Your task to perform on an android device: Open ESPN.com Image 0: 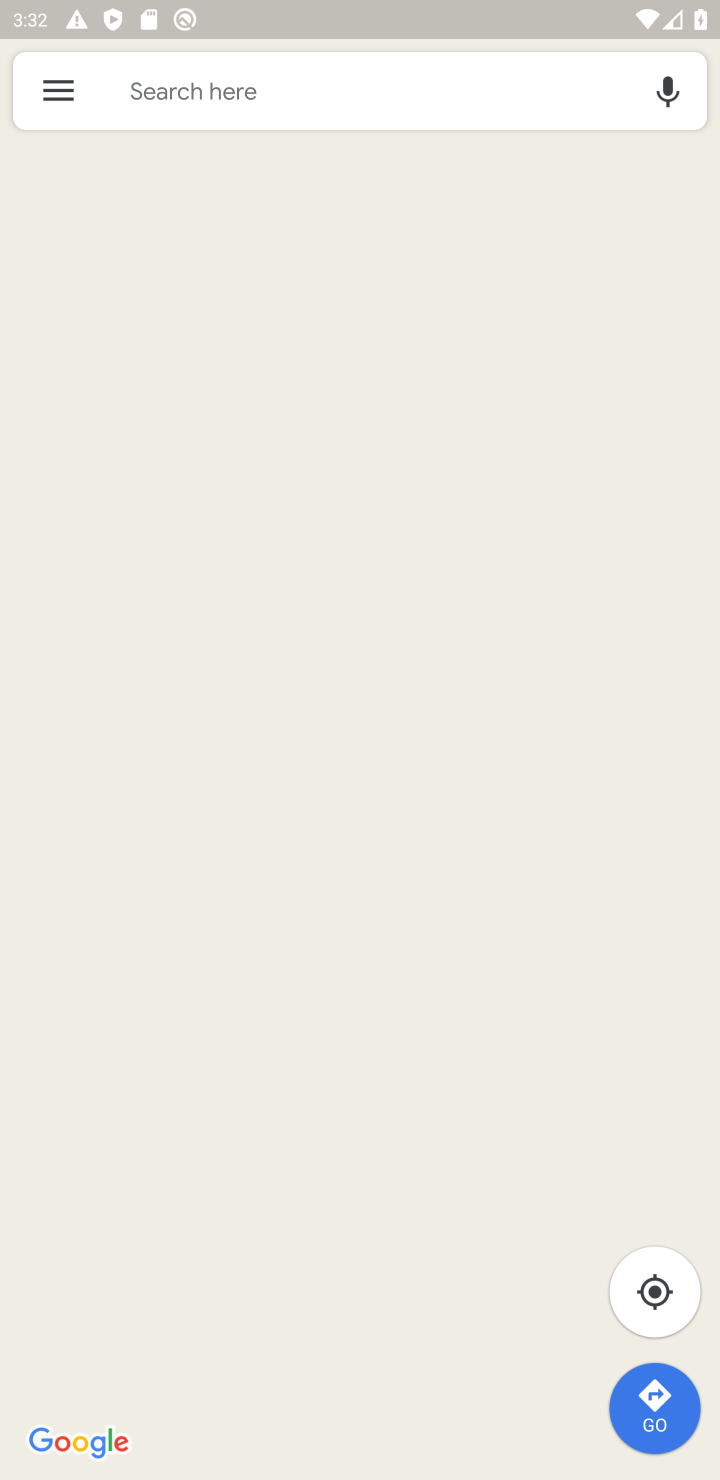
Step 0: press home button
Your task to perform on an android device: Open ESPN.com Image 1: 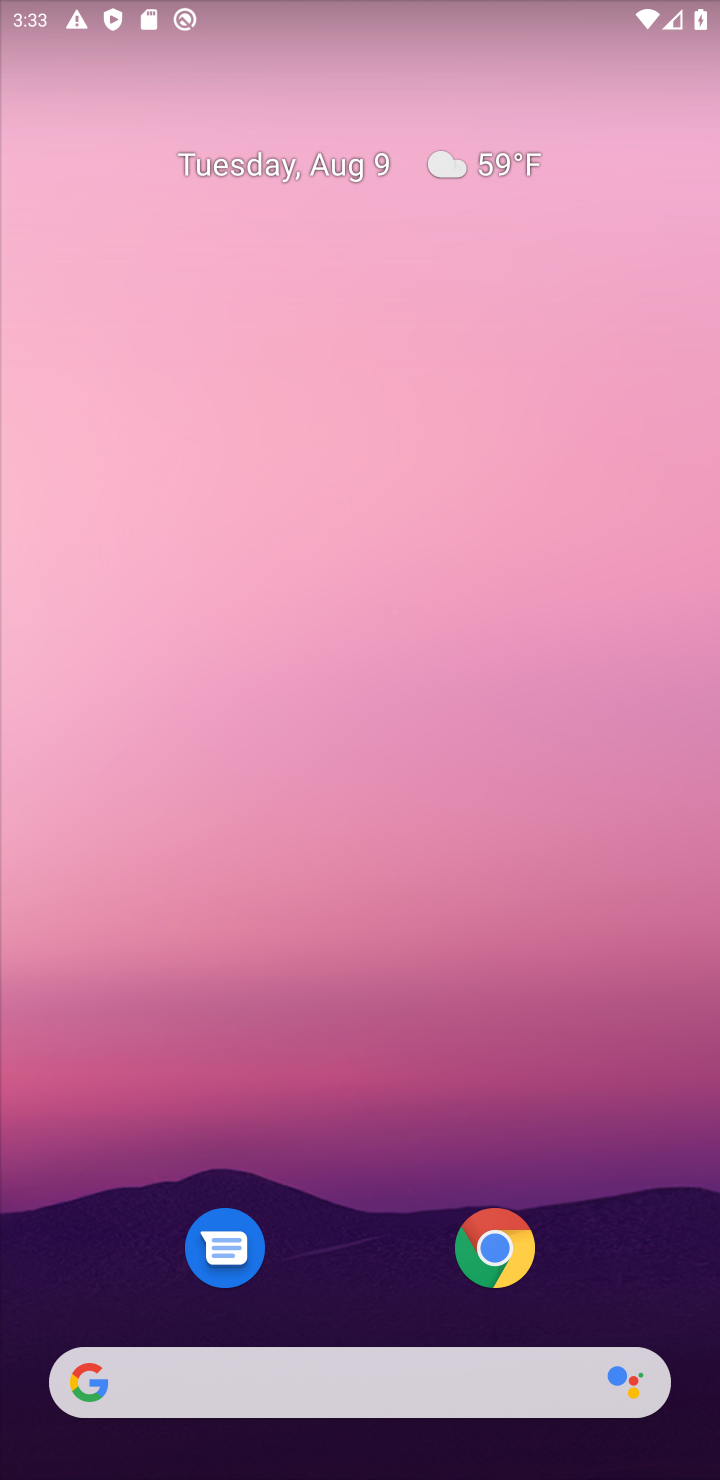
Step 1: drag from (356, 1169) to (252, 233)
Your task to perform on an android device: Open ESPN.com Image 2: 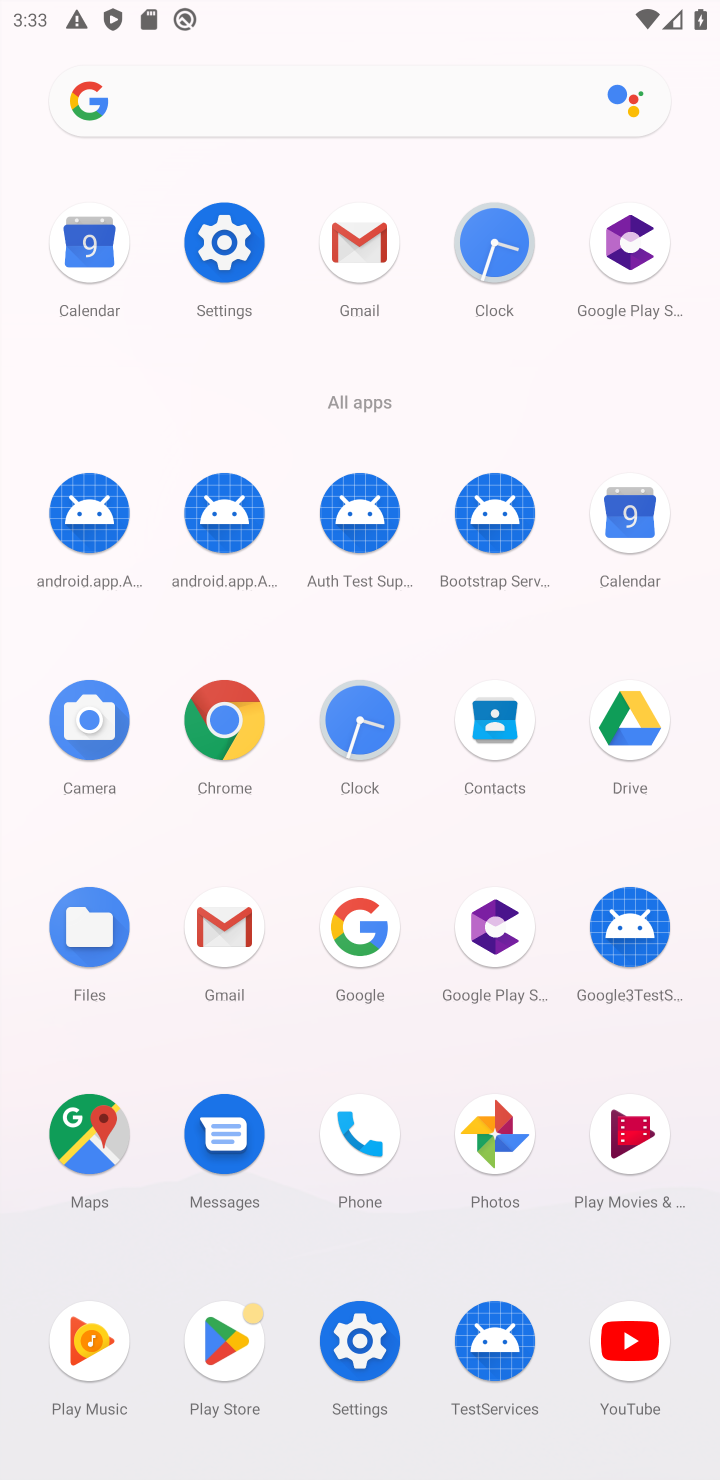
Step 2: click (233, 723)
Your task to perform on an android device: Open ESPN.com Image 3: 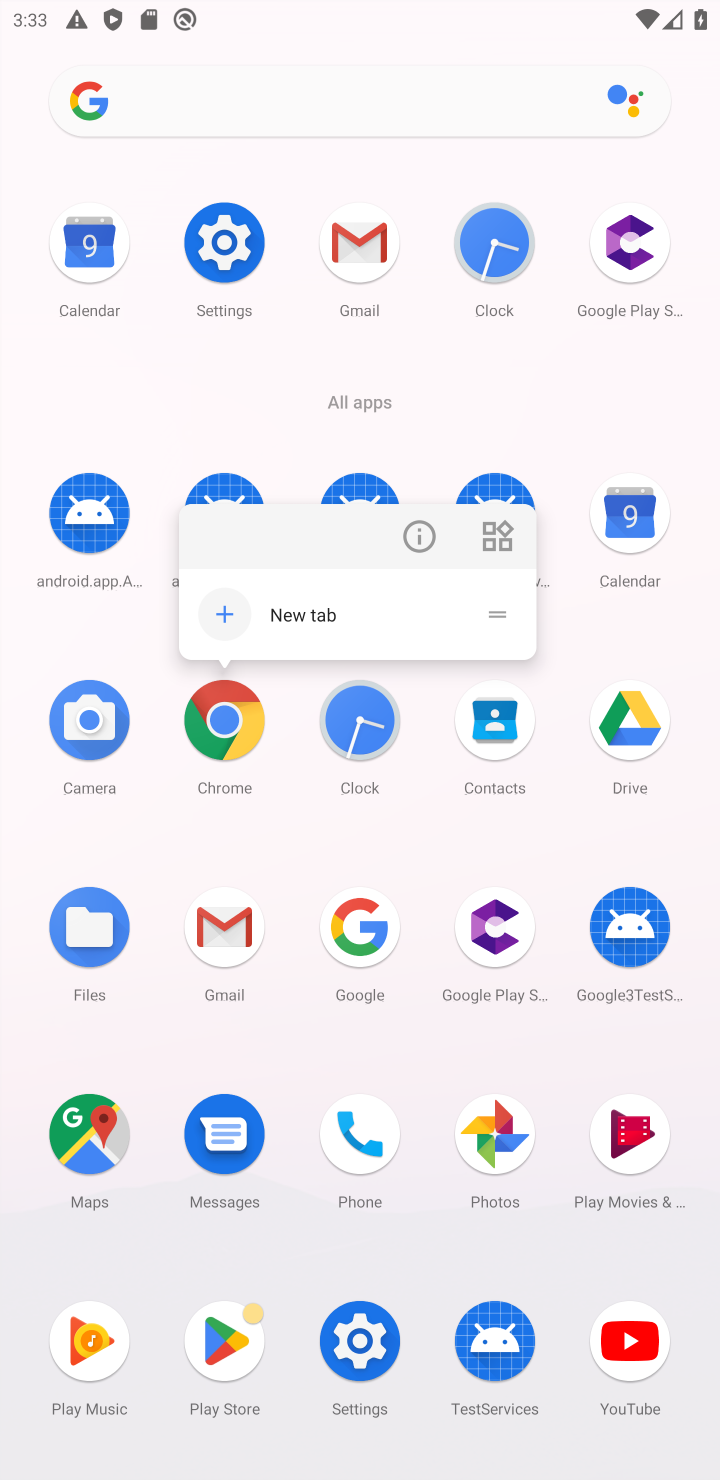
Step 3: click (223, 710)
Your task to perform on an android device: Open ESPN.com Image 4: 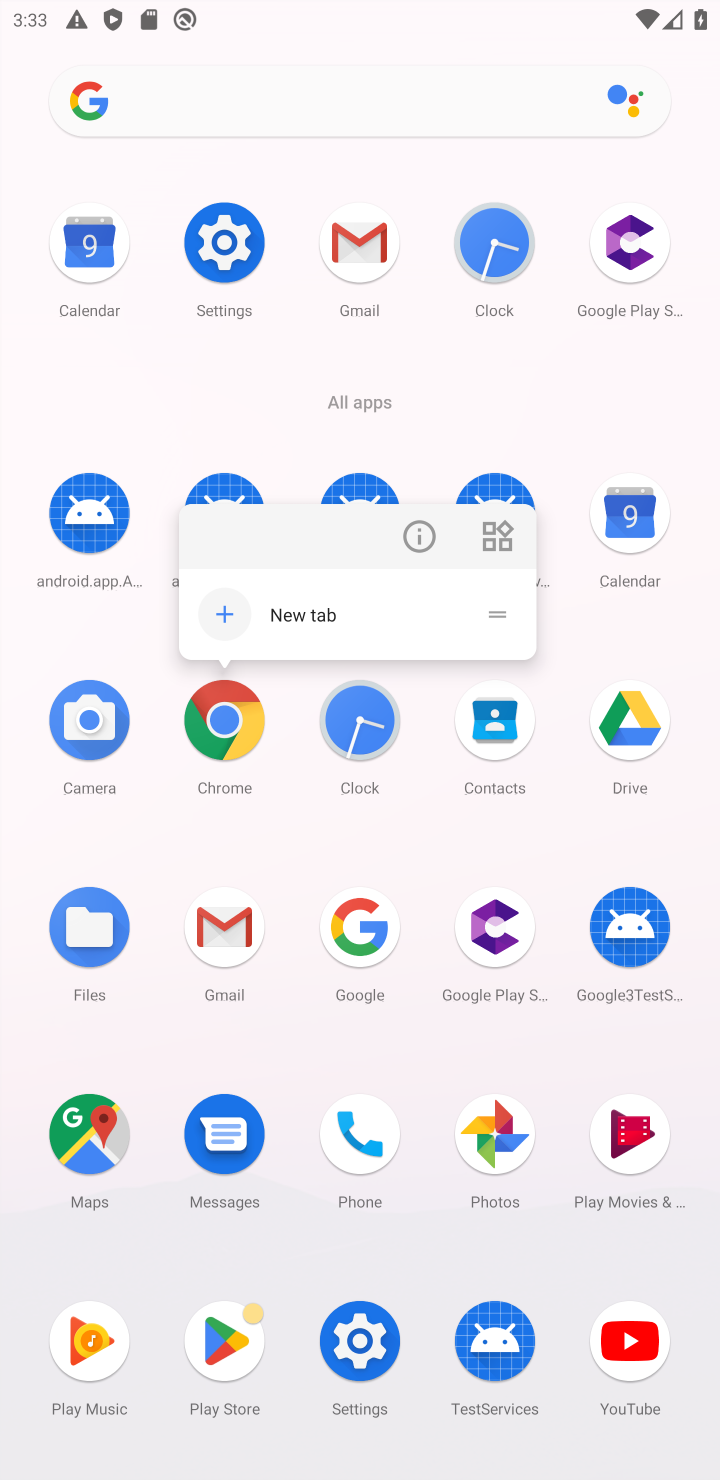
Step 4: click (234, 729)
Your task to perform on an android device: Open ESPN.com Image 5: 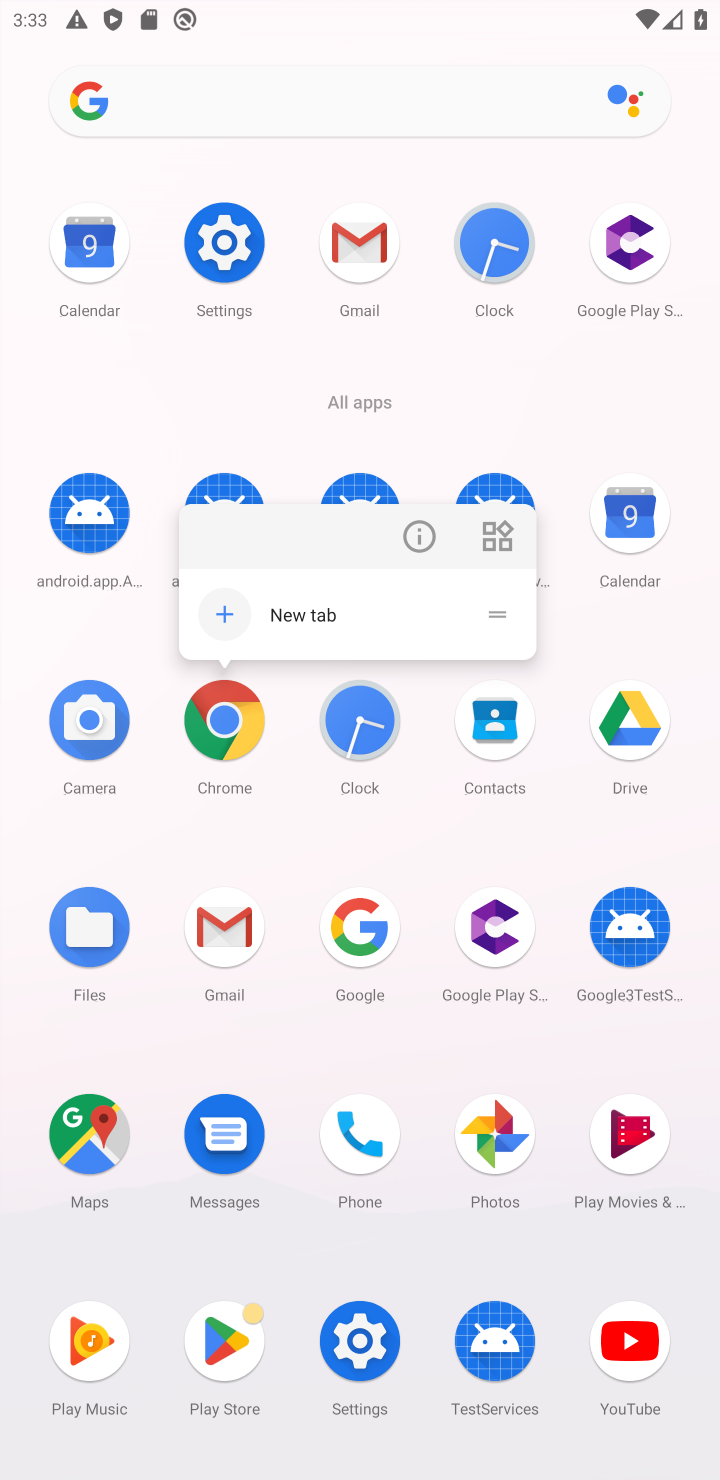
Step 5: click (218, 729)
Your task to perform on an android device: Open ESPN.com Image 6: 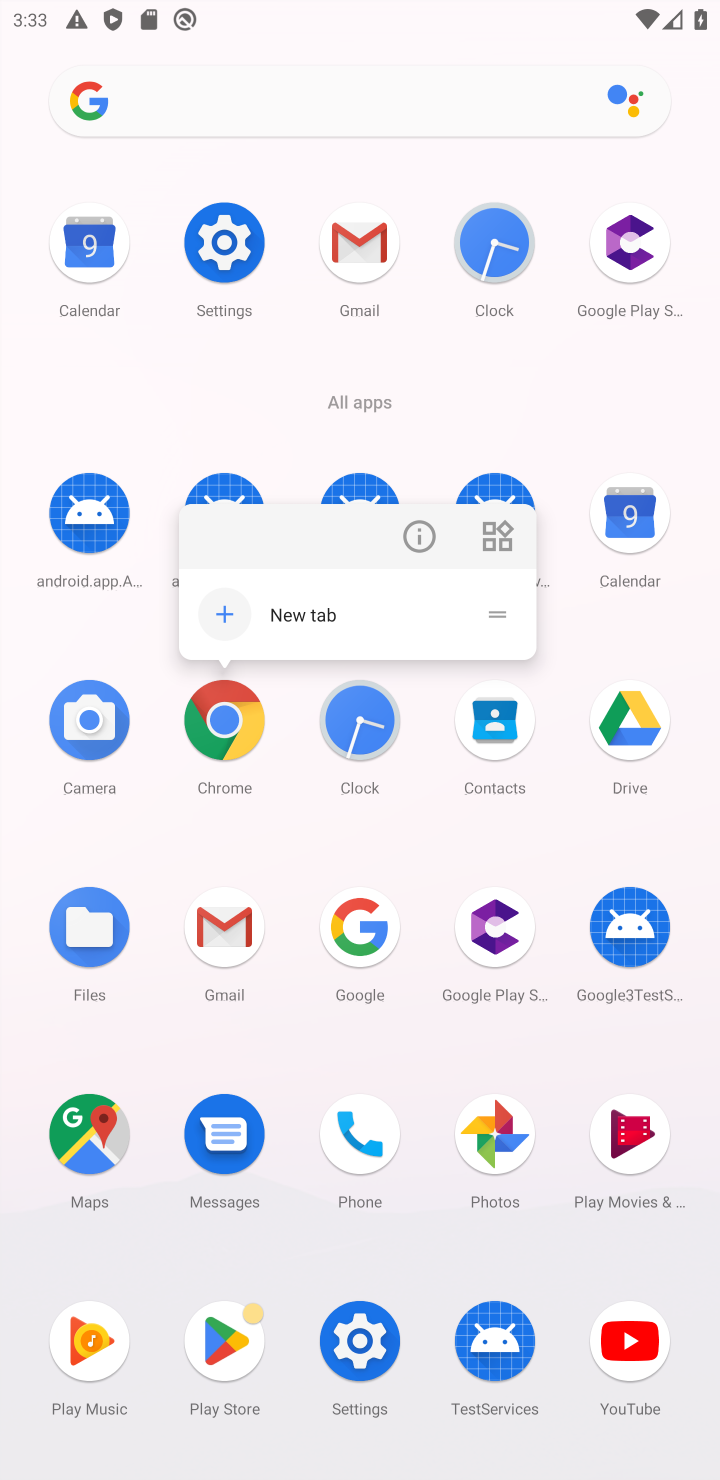
Step 6: click (700, 641)
Your task to perform on an android device: Open ESPN.com Image 7: 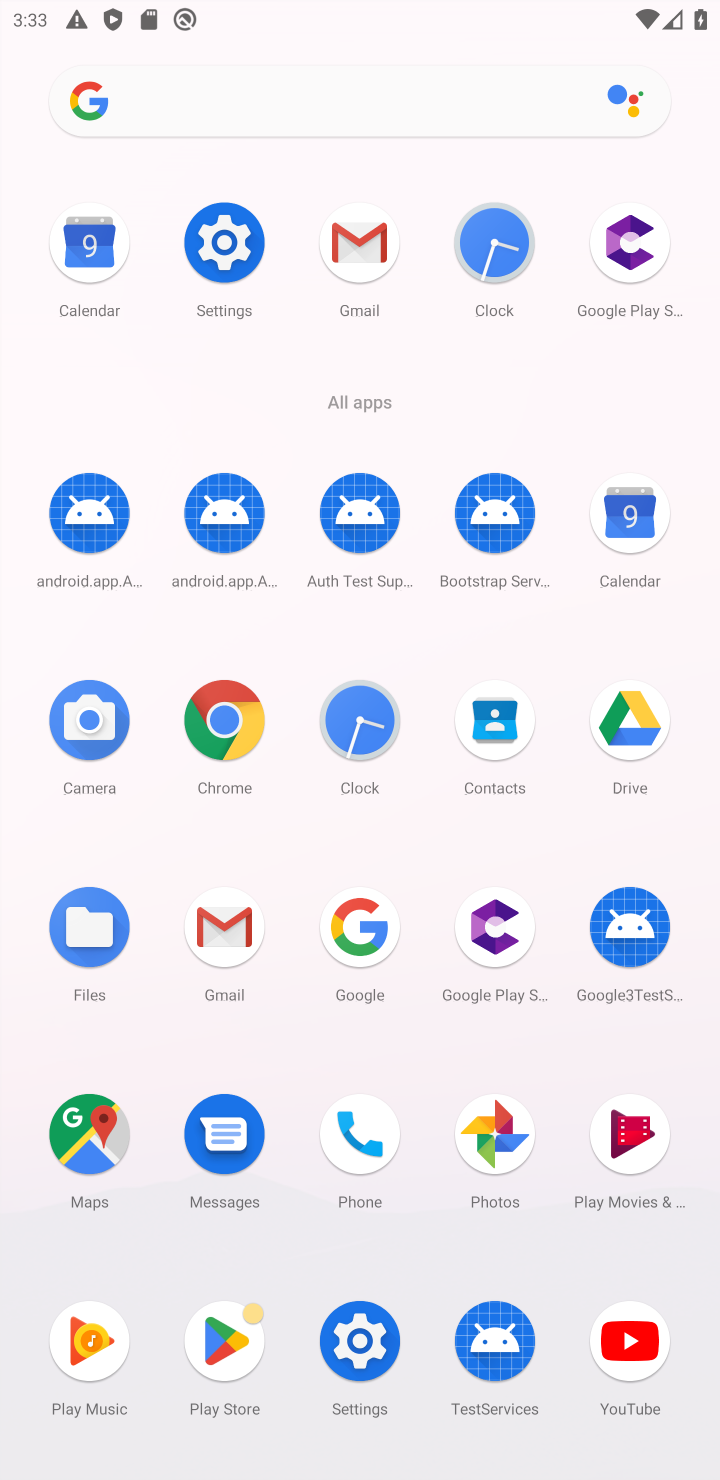
Step 7: click (217, 717)
Your task to perform on an android device: Open ESPN.com Image 8: 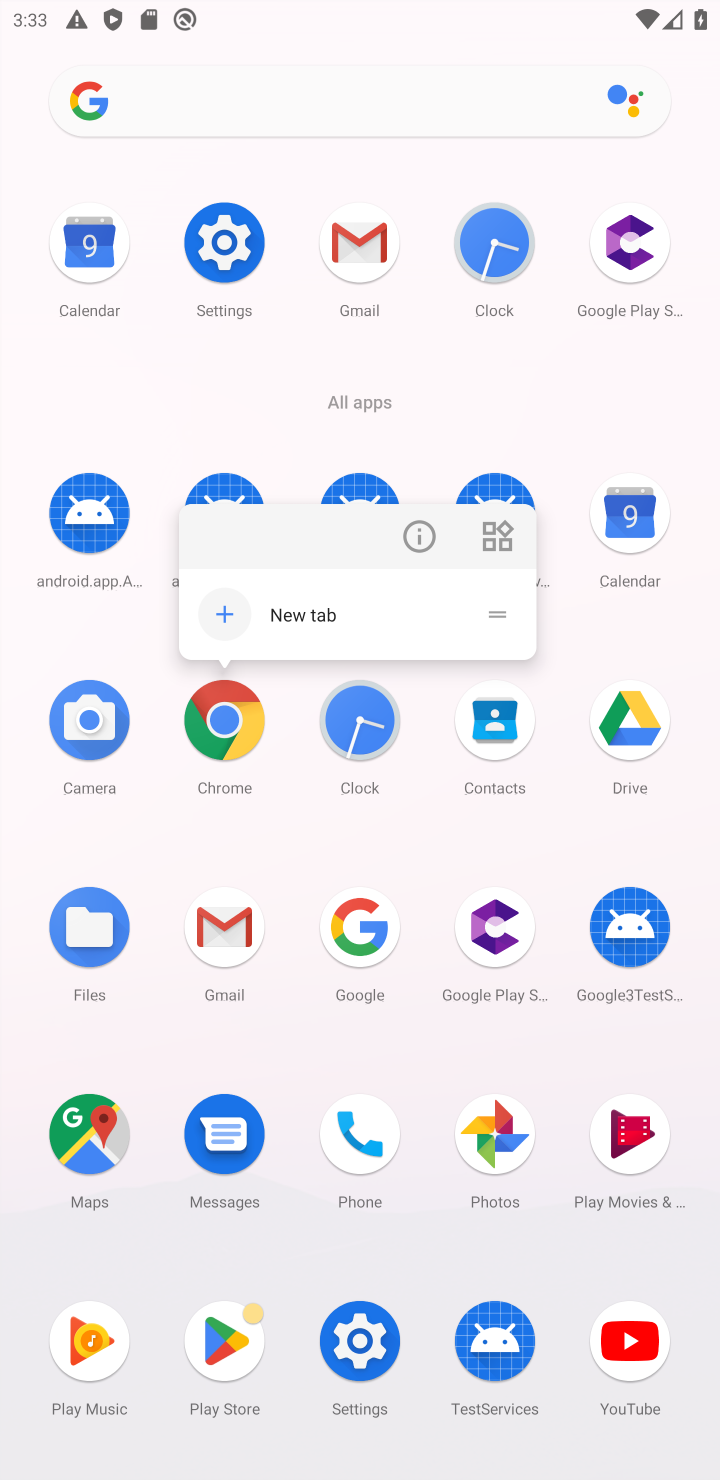
Step 8: click (239, 715)
Your task to perform on an android device: Open ESPN.com Image 9: 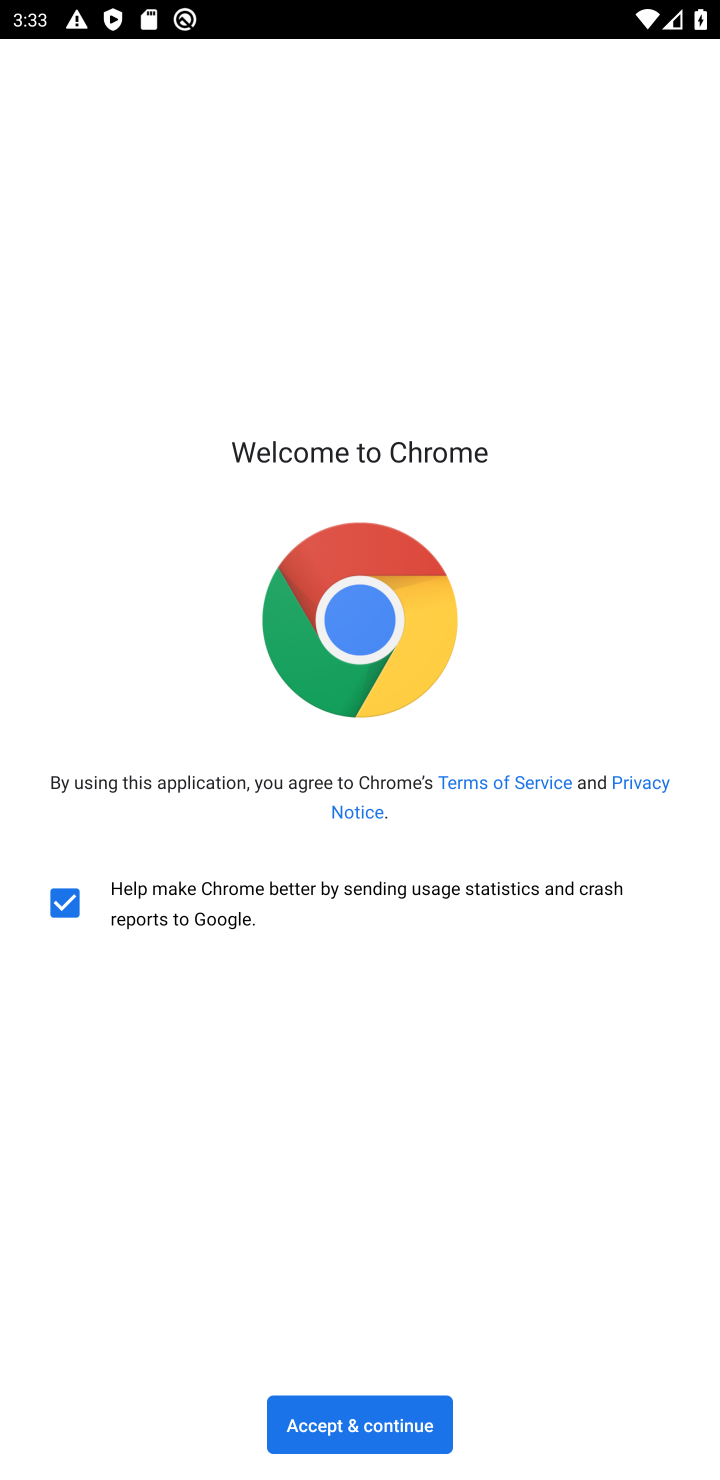
Step 9: click (381, 1421)
Your task to perform on an android device: Open ESPN.com Image 10: 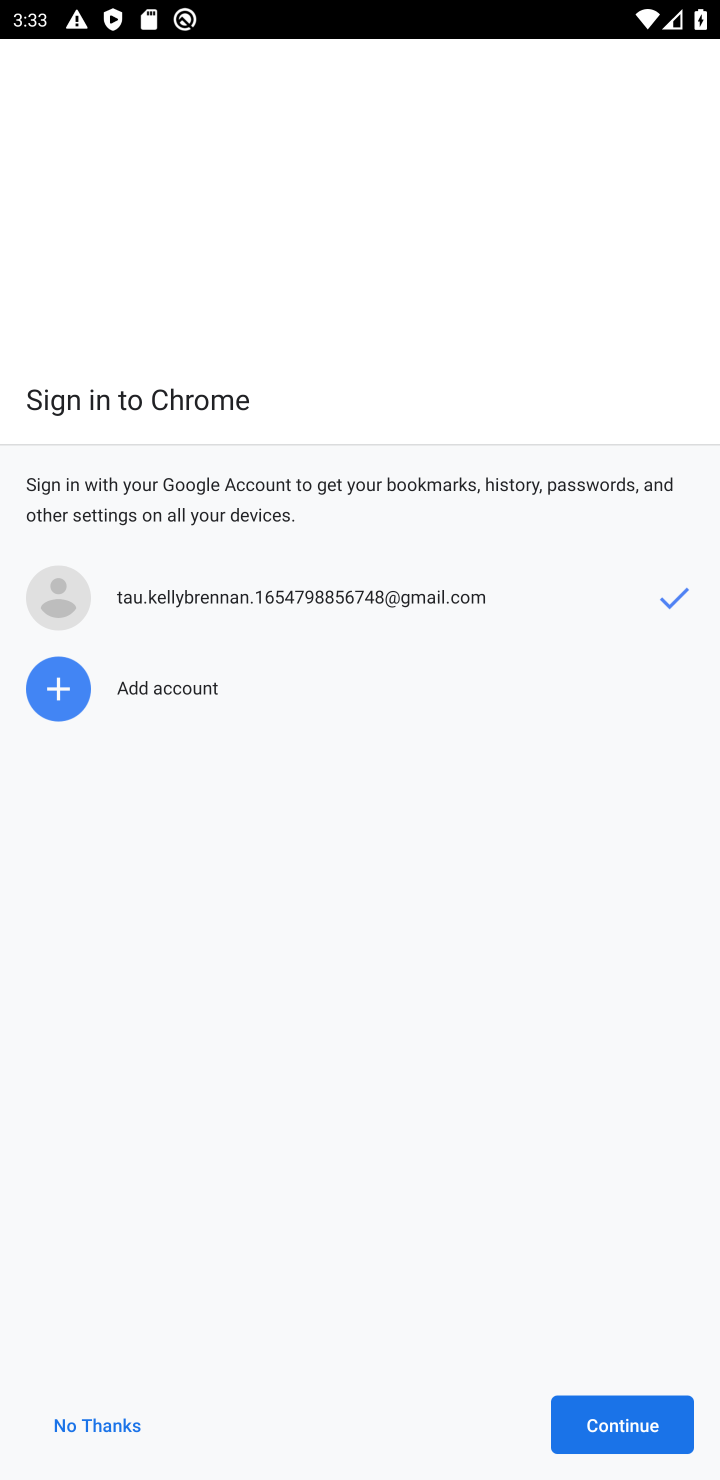
Step 10: click (627, 1427)
Your task to perform on an android device: Open ESPN.com Image 11: 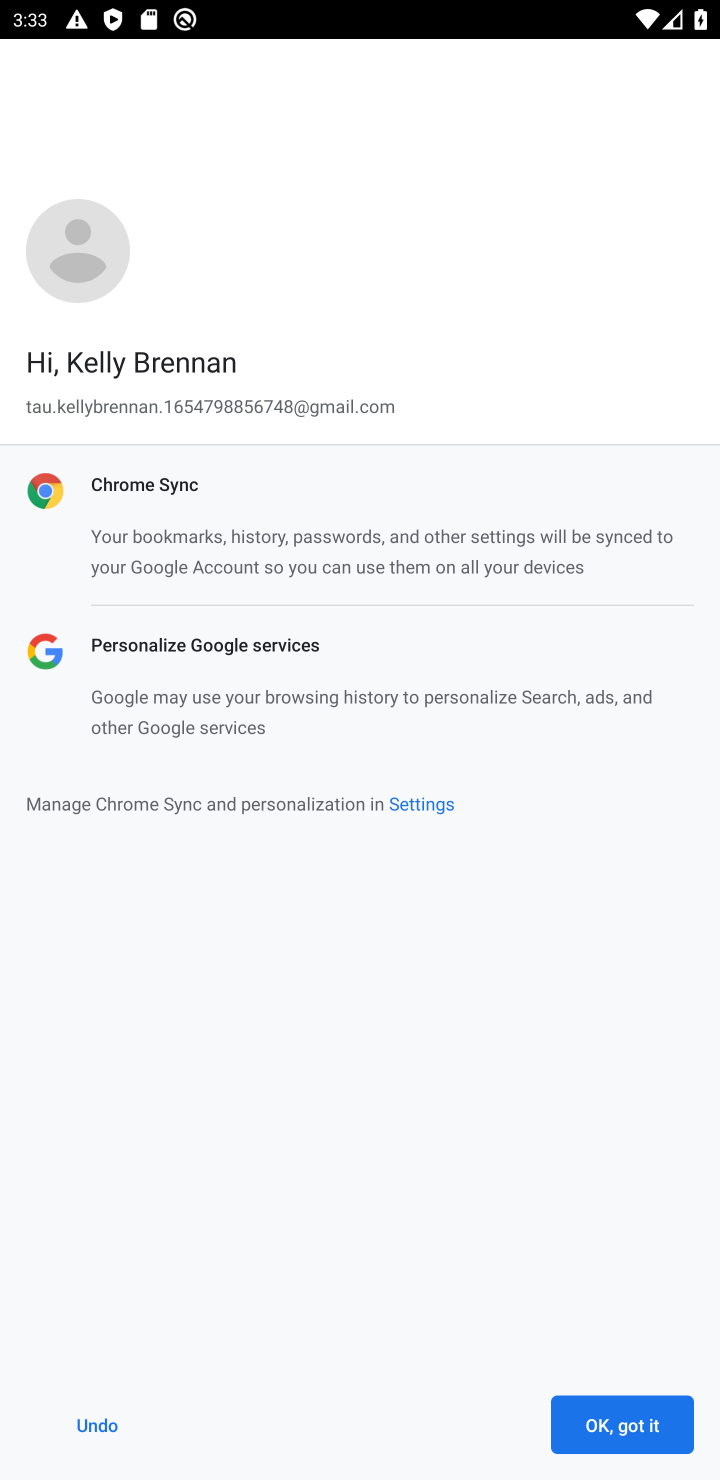
Step 11: click (627, 1427)
Your task to perform on an android device: Open ESPN.com Image 12: 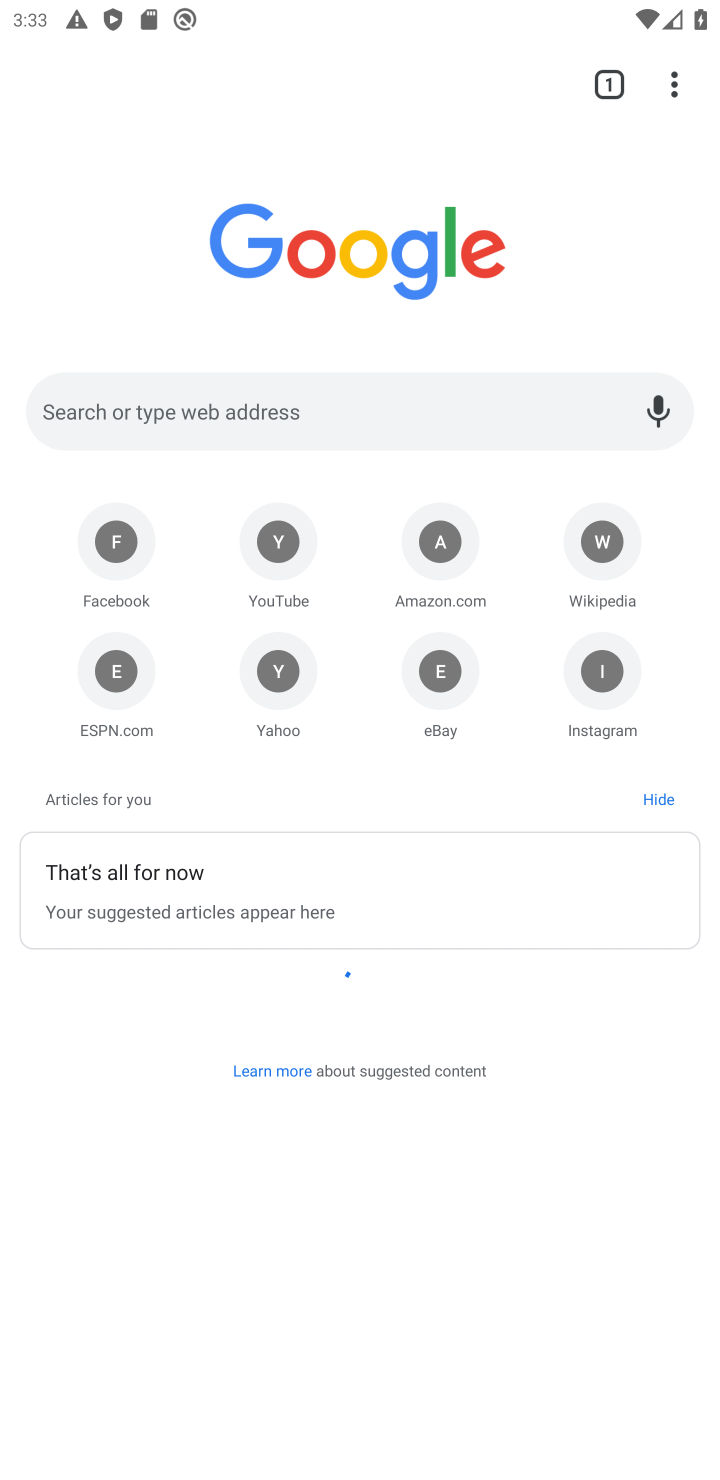
Step 12: click (110, 685)
Your task to perform on an android device: Open ESPN.com Image 13: 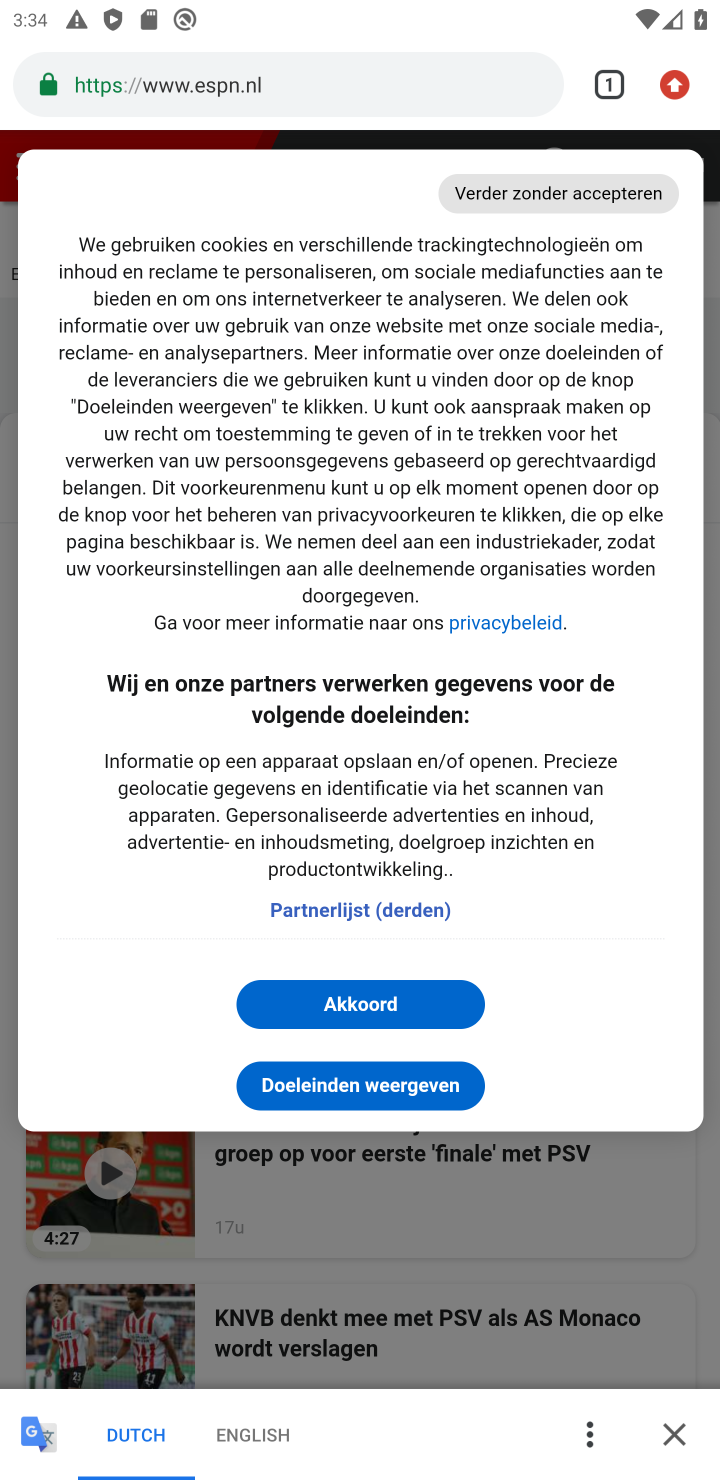
Step 13: task complete